Your task to perform on an android device: Show me the alarms in the clock app Image 0: 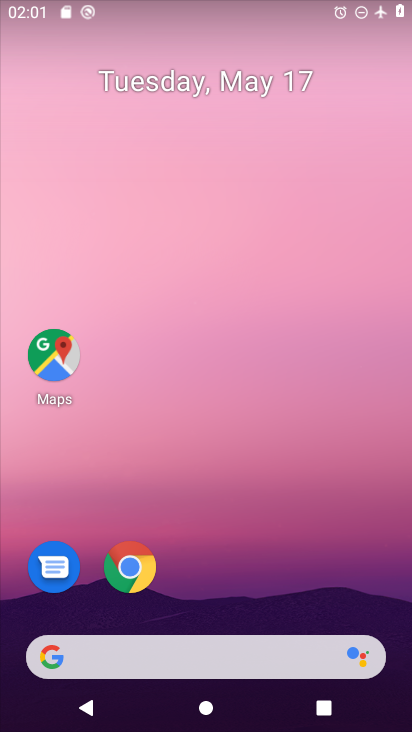
Step 0: drag from (280, 559) to (188, 153)
Your task to perform on an android device: Show me the alarms in the clock app Image 1: 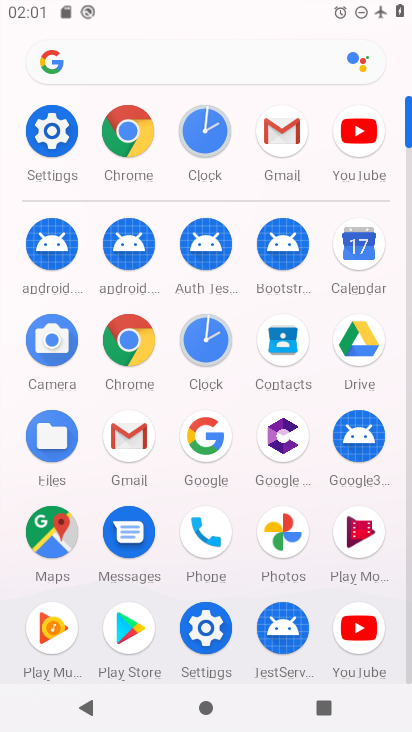
Step 1: click (199, 131)
Your task to perform on an android device: Show me the alarms in the clock app Image 2: 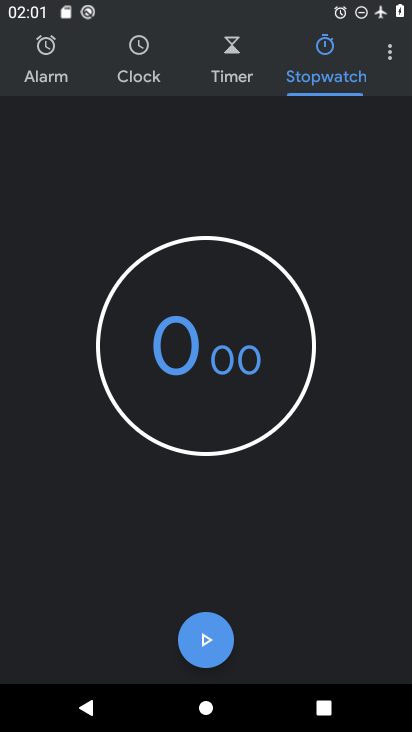
Step 2: click (47, 56)
Your task to perform on an android device: Show me the alarms in the clock app Image 3: 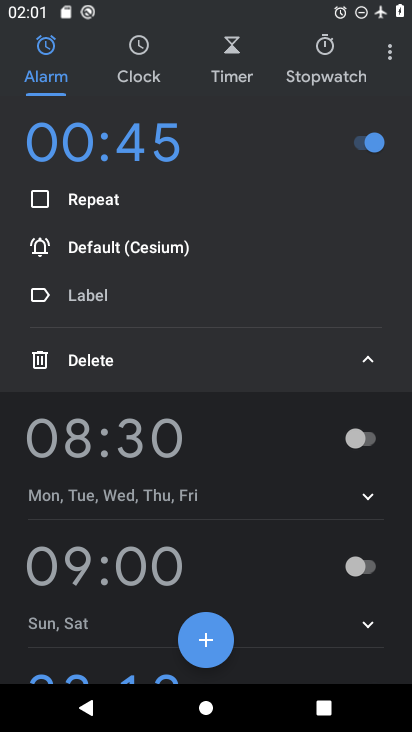
Step 3: task complete